Your task to perform on an android device: turn on improve location accuracy Image 0: 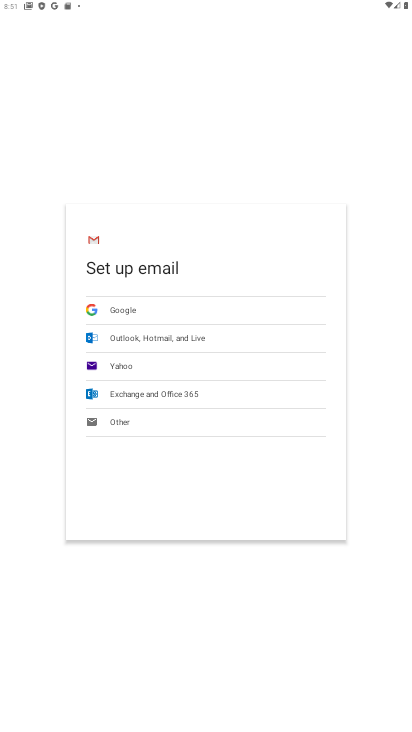
Step 0: press home button
Your task to perform on an android device: turn on improve location accuracy Image 1: 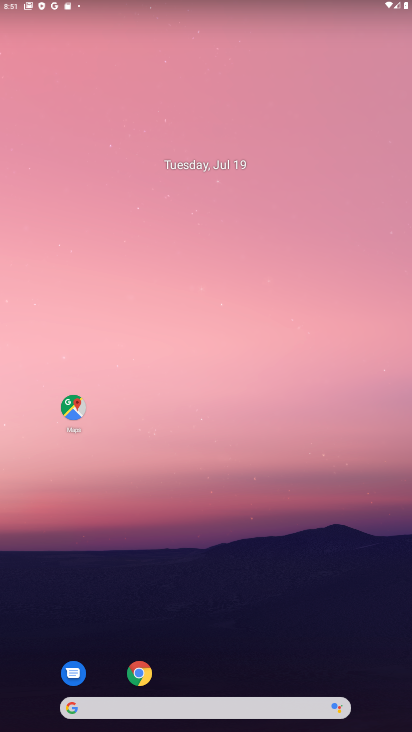
Step 1: drag from (201, 602) to (97, 100)
Your task to perform on an android device: turn on improve location accuracy Image 2: 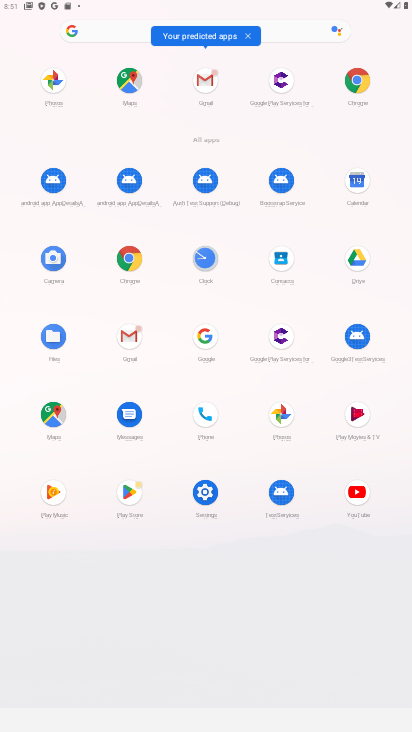
Step 2: click (211, 498)
Your task to perform on an android device: turn on improve location accuracy Image 3: 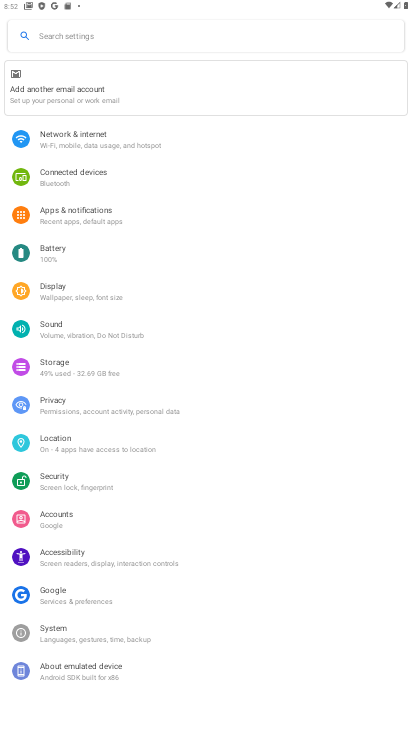
Step 3: click (74, 439)
Your task to perform on an android device: turn on improve location accuracy Image 4: 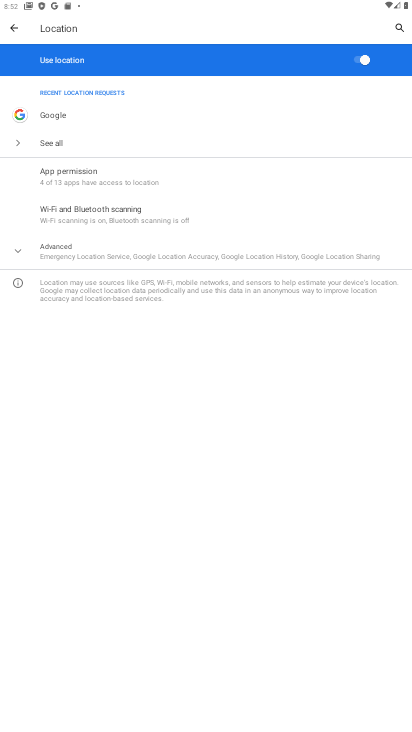
Step 4: click (114, 242)
Your task to perform on an android device: turn on improve location accuracy Image 5: 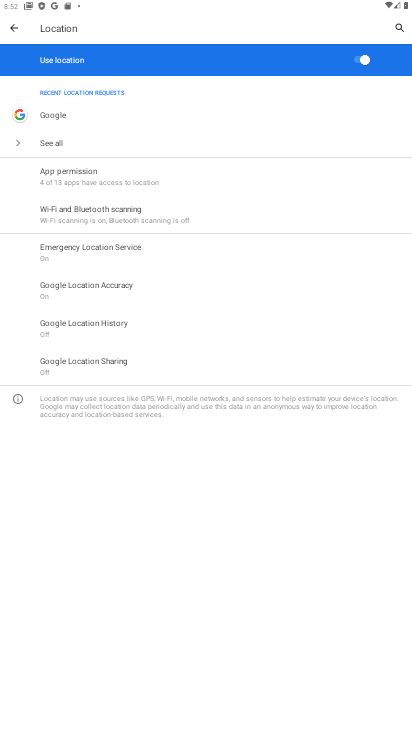
Step 5: click (118, 289)
Your task to perform on an android device: turn on improve location accuracy Image 6: 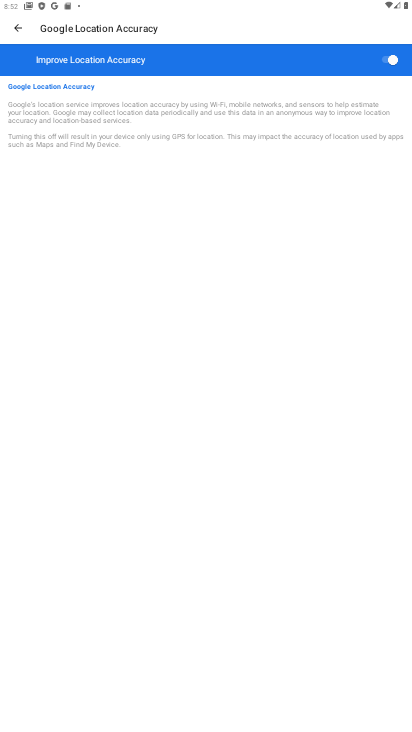
Step 6: task complete